Your task to perform on an android device: set an alarm Image 0: 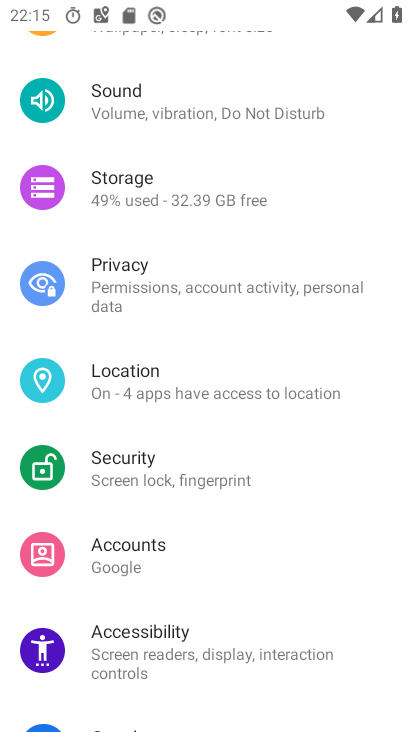
Step 0: press home button
Your task to perform on an android device: set an alarm Image 1: 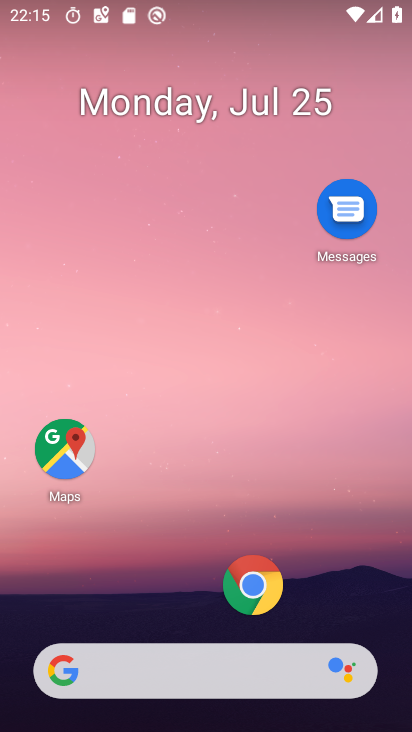
Step 1: drag from (160, 675) to (294, 49)
Your task to perform on an android device: set an alarm Image 2: 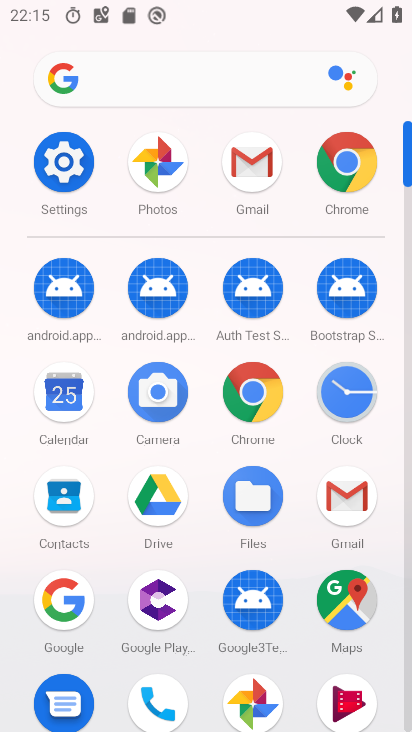
Step 2: click (348, 400)
Your task to perform on an android device: set an alarm Image 3: 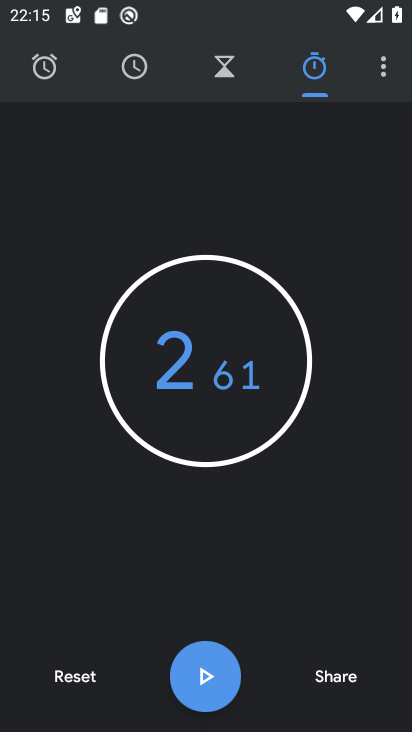
Step 3: click (40, 56)
Your task to perform on an android device: set an alarm Image 4: 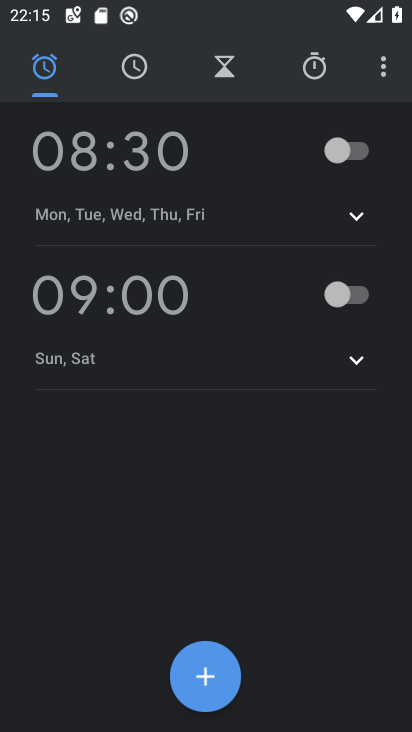
Step 4: click (353, 149)
Your task to perform on an android device: set an alarm Image 5: 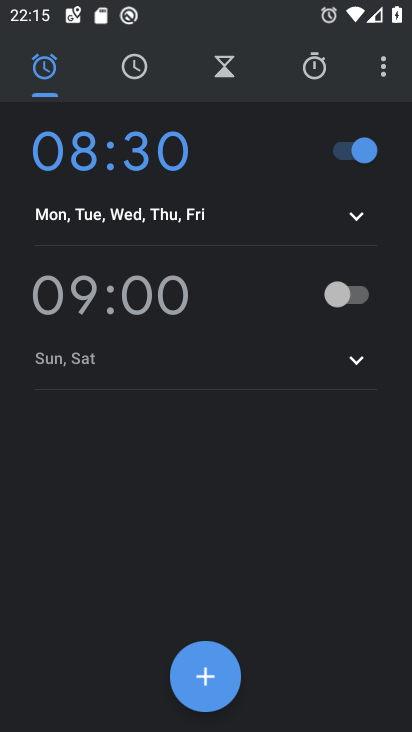
Step 5: task complete